Your task to perform on an android device: Open Google Chrome and open the bookmarks view Image 0: 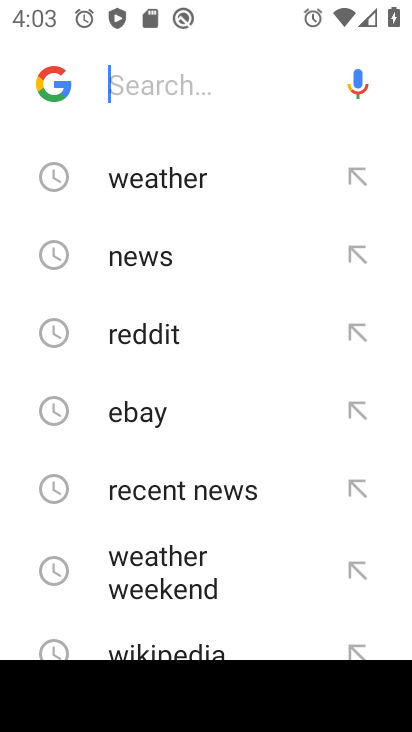
Step 0: press home button
Your task to perform on an android device: Open Google Chrome and open the bookmarks view Image 1: 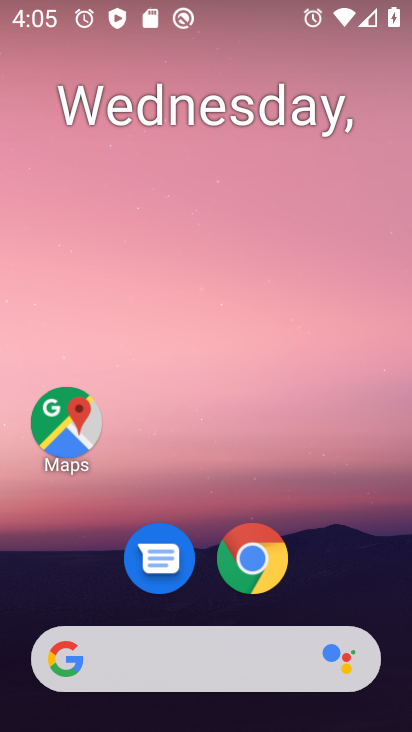
Step 1: click (259, 555)
Your task to perform on an android device: Open Google Chrome and open the bookmarks view Image 2: 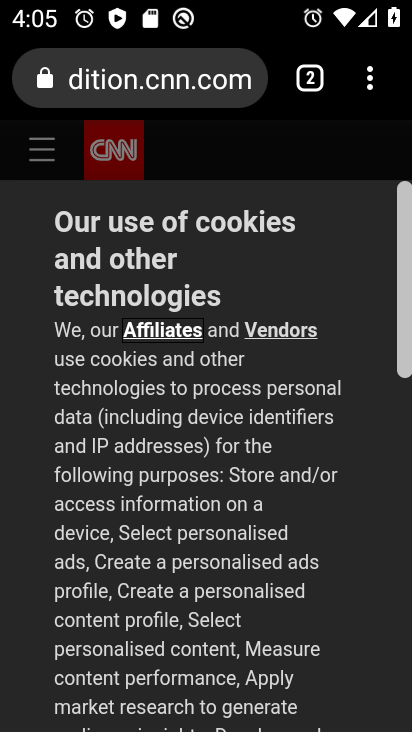
Step 2: click (369, 60)
Your task to perform on an android device: Open Google Chrome and open the bookmarks view Image 3: 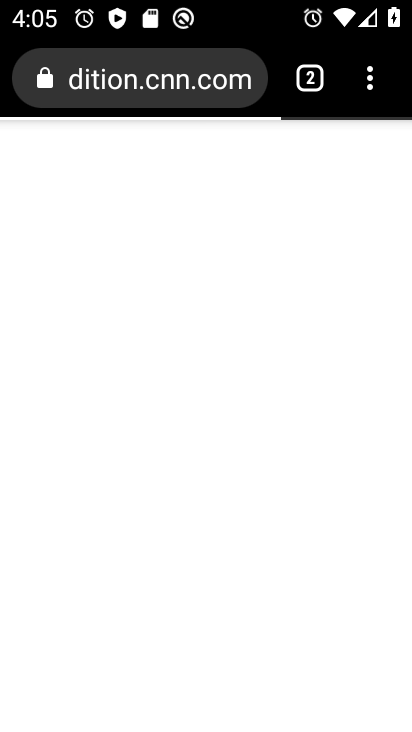
Step 3: click (367, 82)
Your task to perform on an android device: Open Google Chrome and open the bookmarks view Image 4: 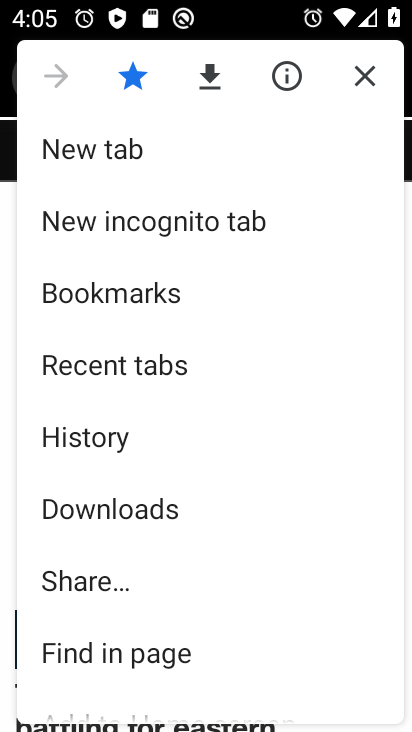
Step 4: click (120, 295)
Your task to perform on an android device: Open Google Chrome and open the bookmarks view Image 5: 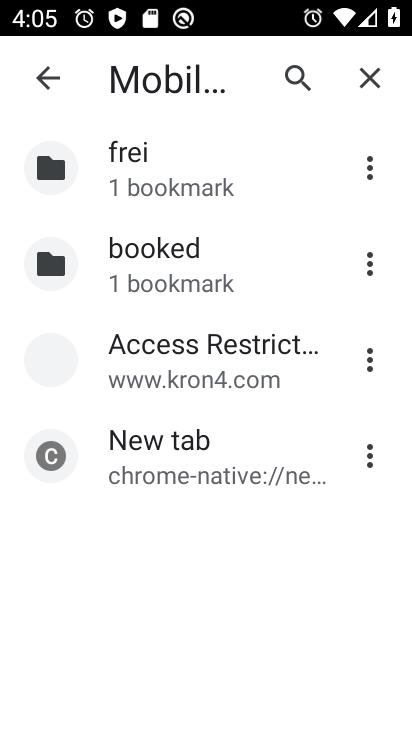
Step 5: task complete